Your task to perform on an android device: Search for seafood restaurants on Google Maps Image 0: 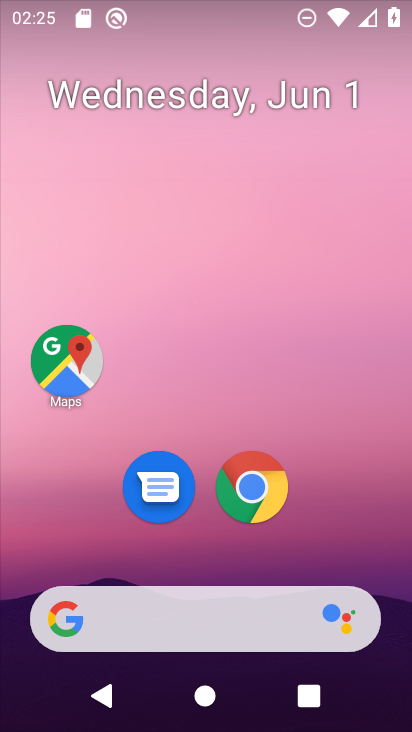
Step 0: click (62, 351)
Your task to perform on an android device: Search for seafood restaurants on Google Maps Image 1: 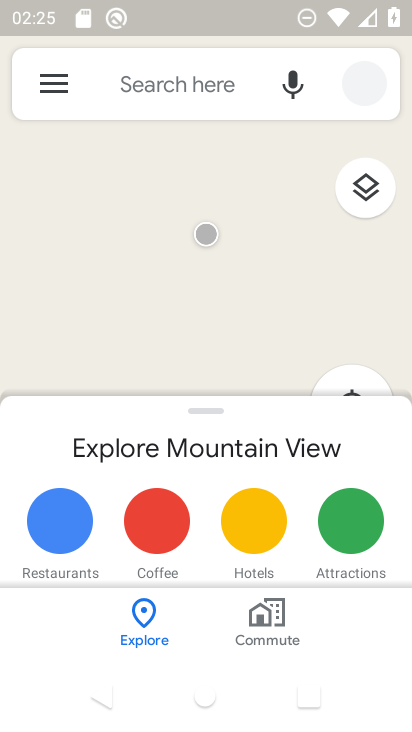
Step 1: click (183, 69)
Your task to perform on an android device: Search for seafood restaurants on Google Maps Image 2: 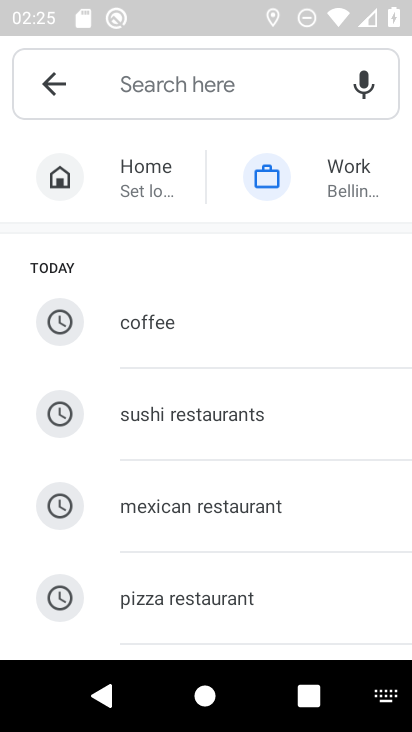
Step 2: drag from (183, 534) to (206, 299)
Your task to perform on an android device: Search for seafood restaurants on Google Maps Image 3: 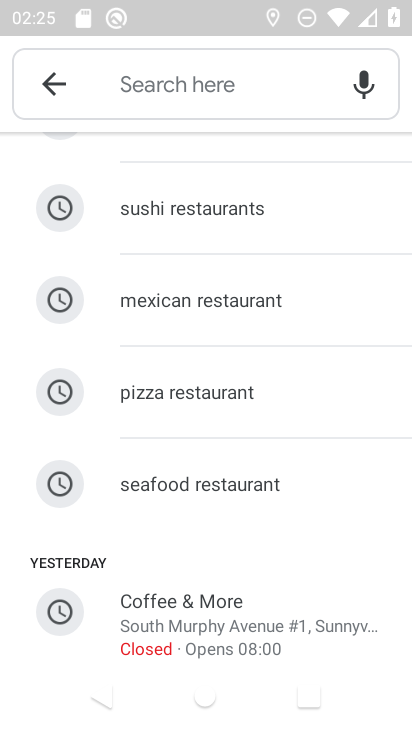
Step 3: click (211, 492)
Your task to perform on an android device: Search for seafood restaurants on Google Maps Image 4: 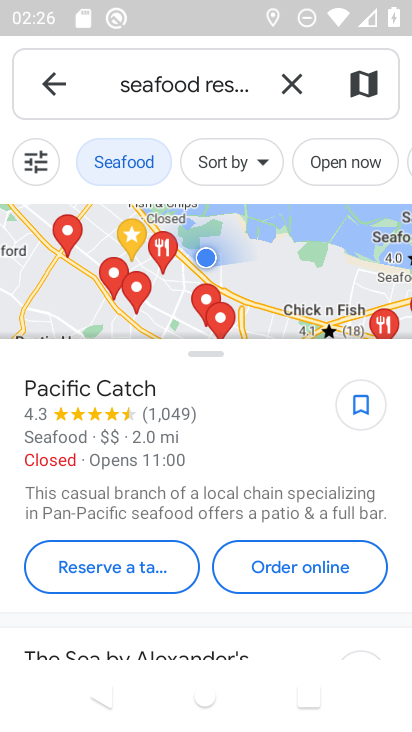
Step 4: task complete